Your task to perform on an android device: Open display settings Image 0: 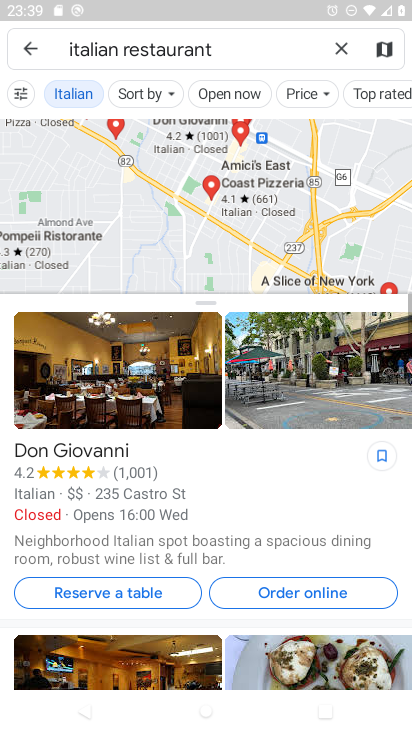
Step 0: press home button
Your task to perform on an android device: Open display settings Image 1: 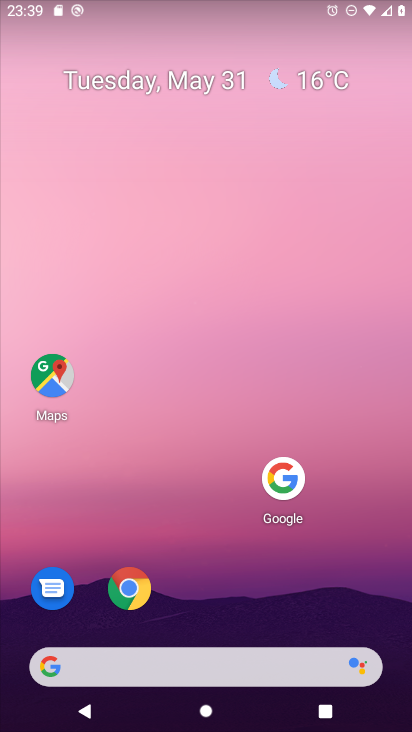
Step 1: drag from (196, 661) to (306, 194)
Your task to perform on an android device: Open display settings Image 2: 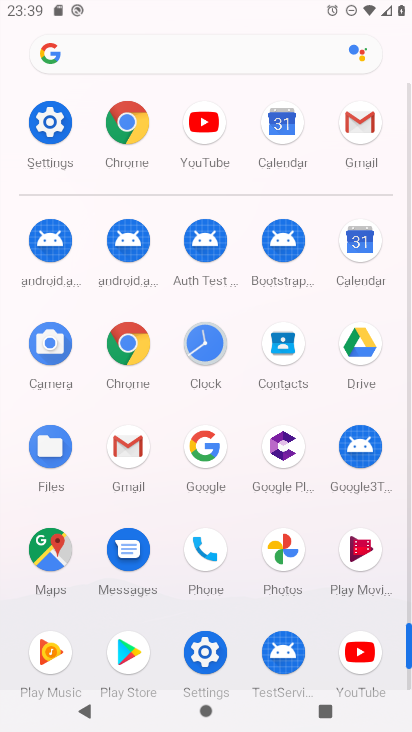
Step 2: click (50, 126)
Your task to perform on an android device: Open display settings Image 3: 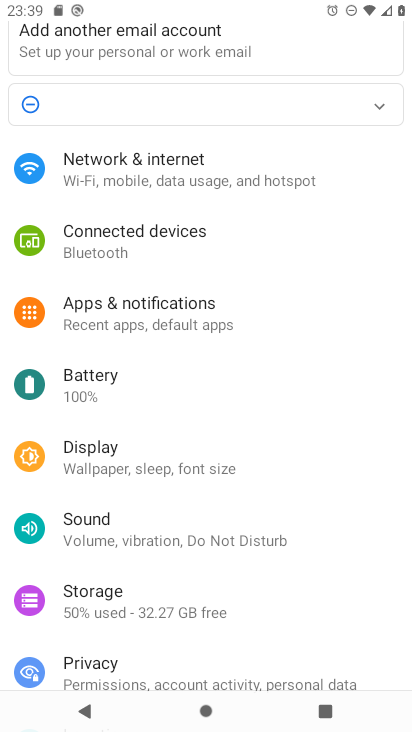
Step 3: click (154, 463)
Your task to perform on an android device: Open display settings Image 4: 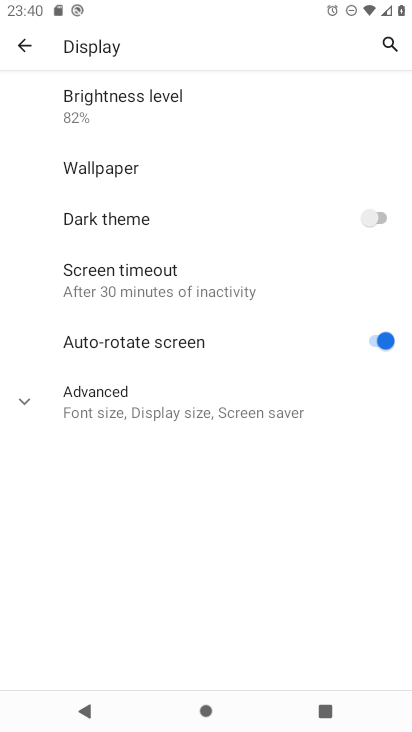
Step 4: task complete